Your task to perform on an android device: search for starred emails in the gmail app Image 0: 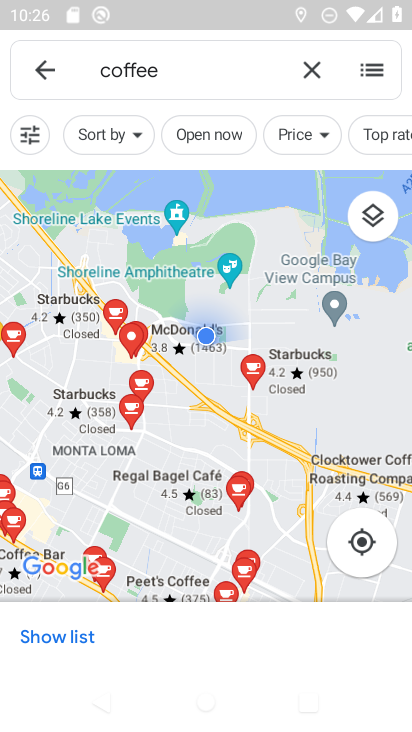
Step 0: press home button
Your task to perform on an android device: search for starred emails in the gmail app Image 1: 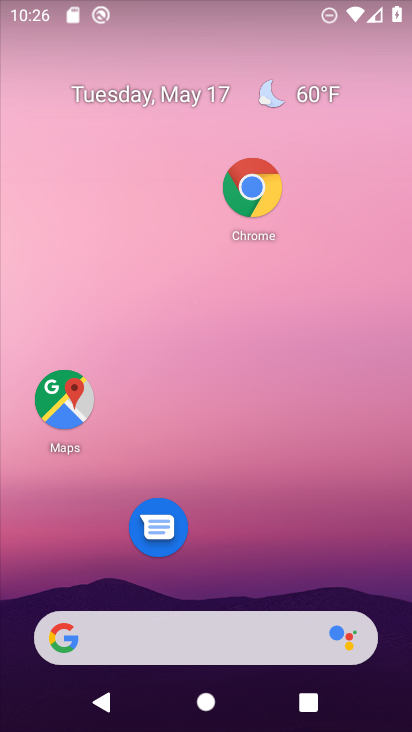
Step 1: drag from (297, 559) to (326, 34)
Your task to perform on an android device: search for starred emails in the gmail app Image 2: 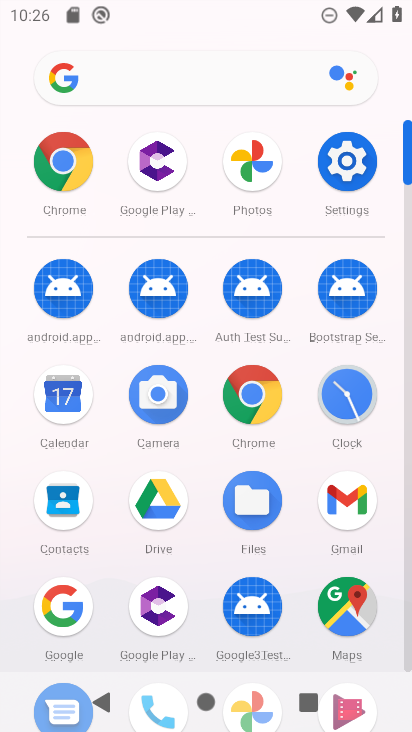
Step 2: click (340, 531)
Your task to perform on an android device: search for starred emails in the gmail app Image 3: 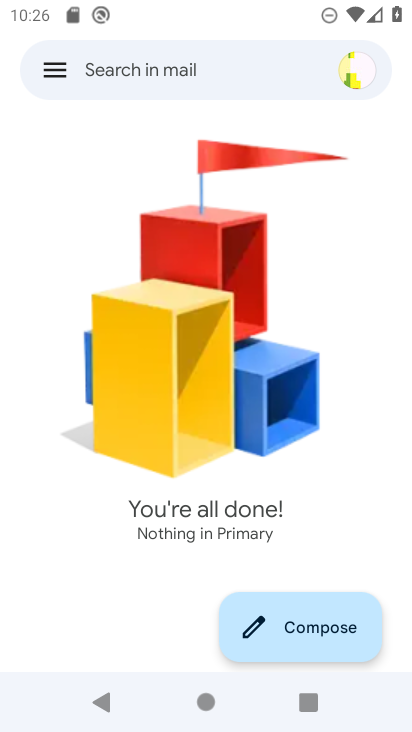
Step 3: click (57, 59)
Your task to perform on an android device: search for starred emails in the gmail app Image 4: 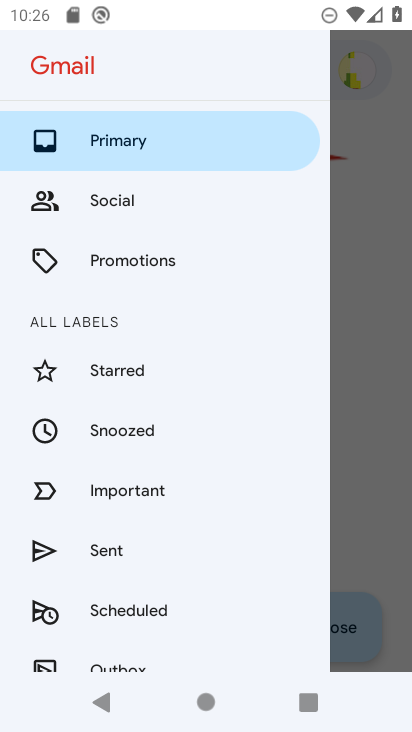
Step 4: task complete